Your task to perform on an android device: open device folders in google photos Image 0: 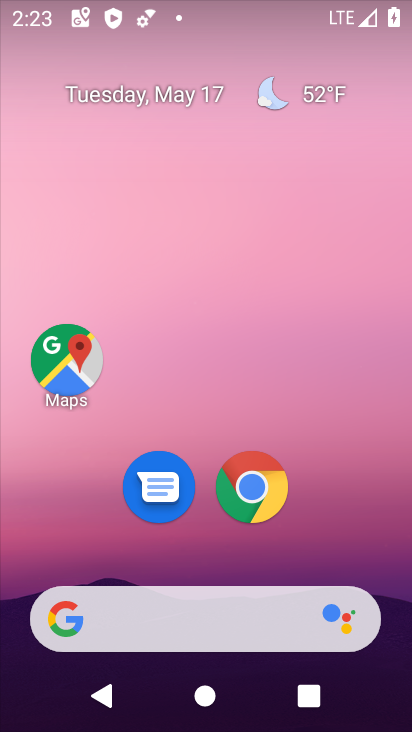
Step 0: drag from (397, 607) to (358, 356)
Your task to perform on an android device: open device folders in google photos Image 1: 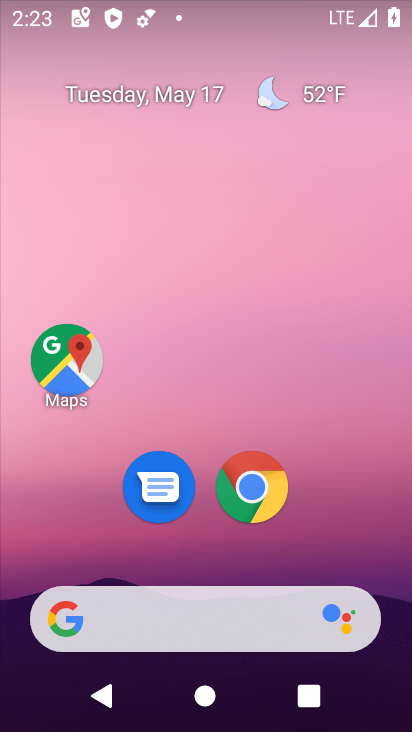
Step 1: drag from (383, 493) to (367, 303)
Your task to perform on an android device: open device folders in google photos Image 2: 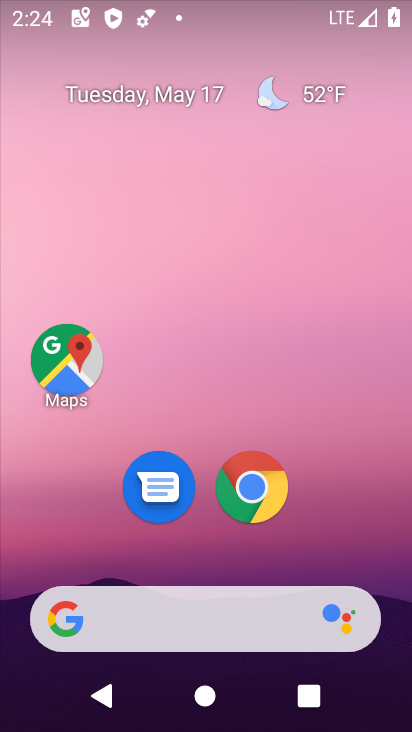
Step 2: click (366, 326)
Your task to perform on an android device: open device folders in google photos Image 3: 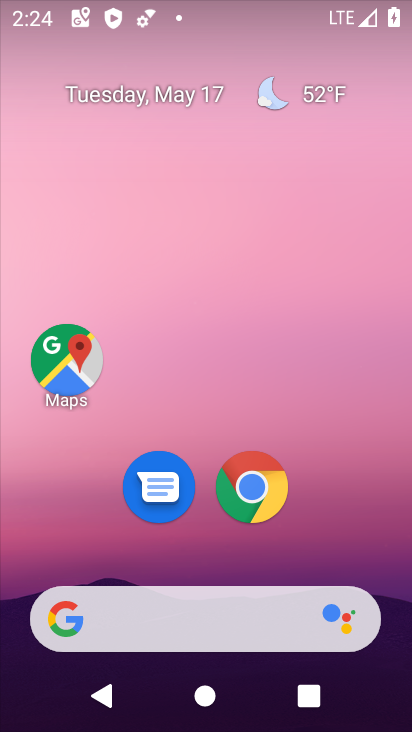
Step 3: drag from (401, 649) to (359, 220)
Your task to perform on an android device: open device folders in google photos Image 4: 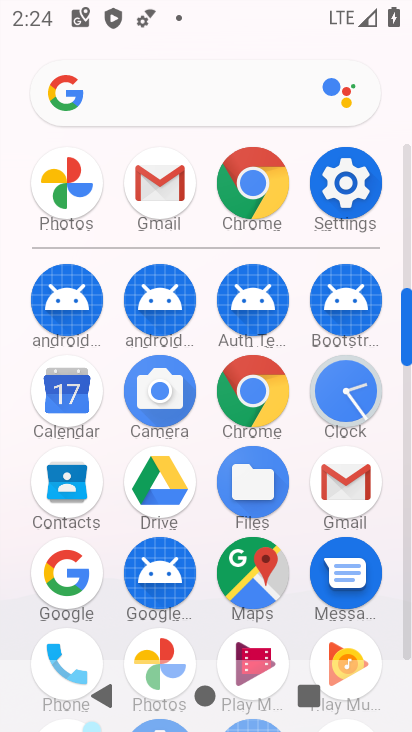
Step 4: click (150, 656)
Your task to perform on an android device: open device folders in google photos Image 5: 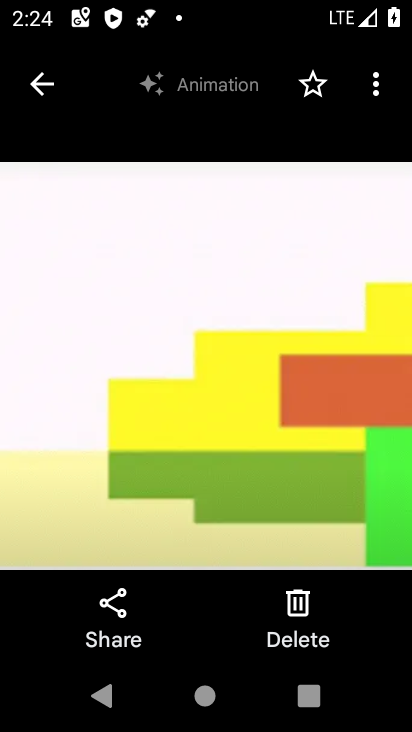
Step 5: click (42, 81)
Your task to perform on an android device: open device folders in google photos Image 6: 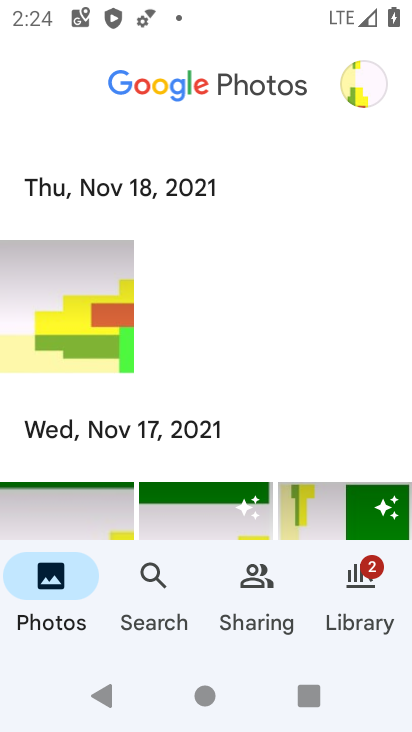
Step 6: task complete